Your task to perform on an android device: open chrome and create a bookmark for the current page Image 0: 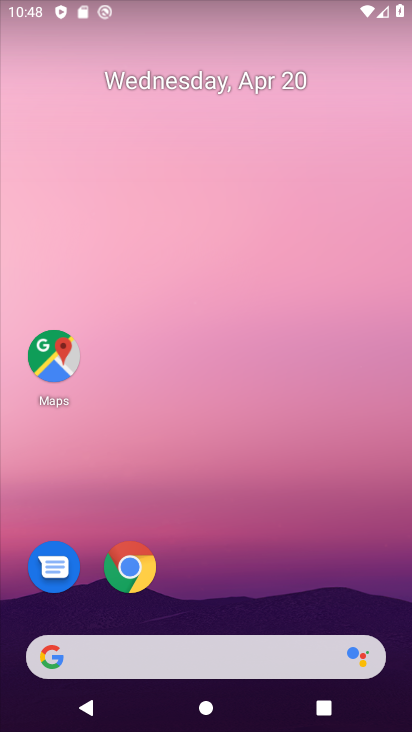
Step 0: click (110, 570)
Your task to perform on an android device: open chrome and create a bookmark for the current page Image 1: 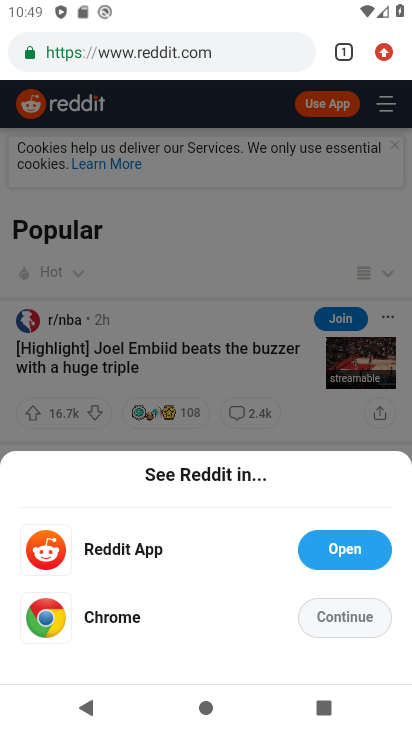
Step 1: click (175, 405)
Your task to perform on an android device: open chrome and create a bookmark for the current page Image 2: 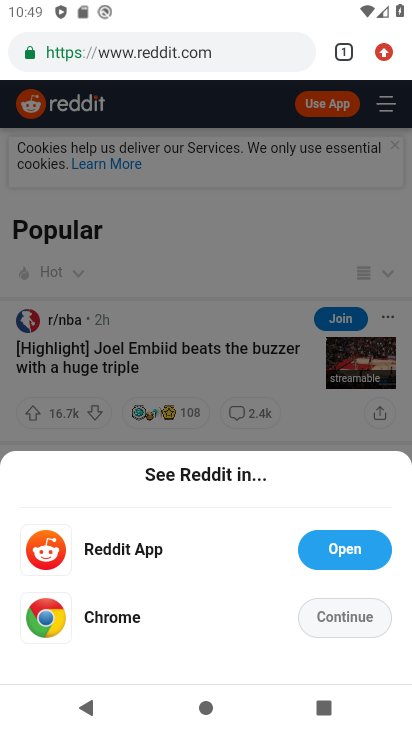
Step 2: task complete